Your task to perform on an android device: change the clock display to show seconds Image 0: 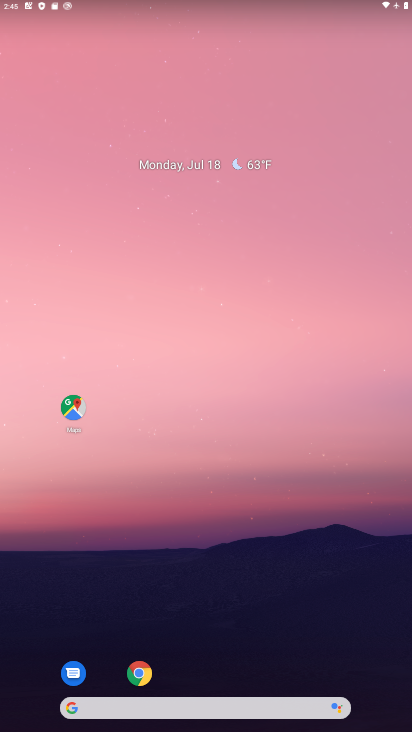
Step 0: drag from (273, 658) to (273, 110)
Your task to perform on an android device: change the clock display to show seconds Image 1: 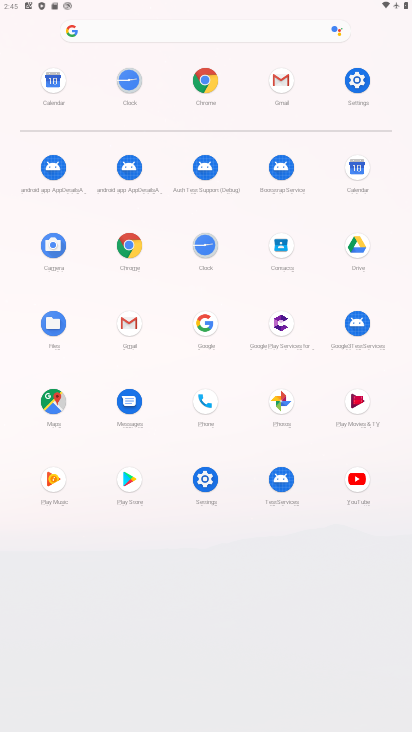
Step 1: click (197, 245)
Your task to perform on an android device: change the clock display to show seconds Image 2: 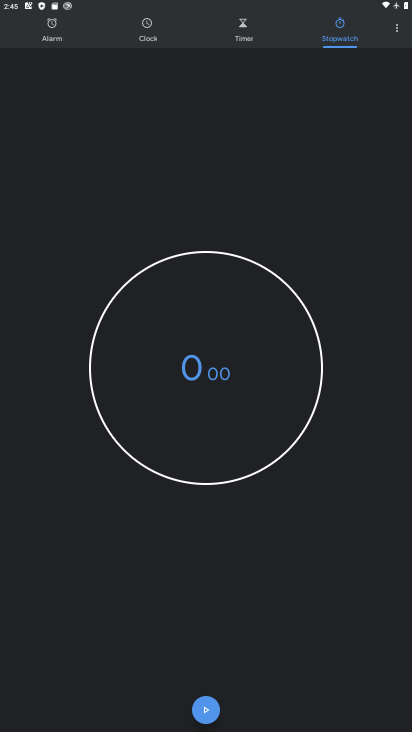
Step 2: click (395, 30)
Your task to perform on an android device: change the clock display to show seconds Image 3: 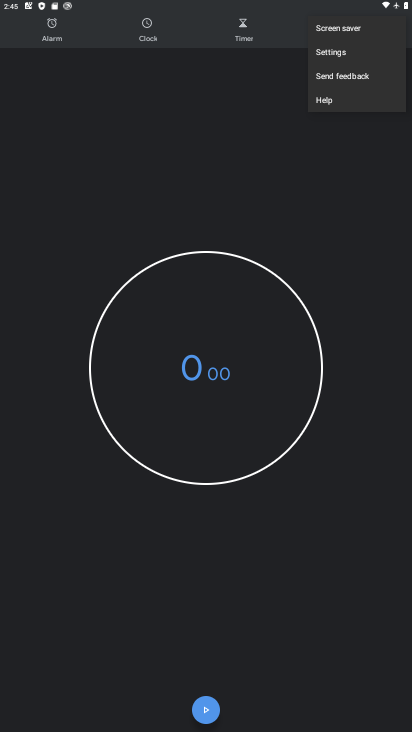
Step 3: click (354, 48)
Your task to perform on an android device: change the clock display to show seconds Image 4: 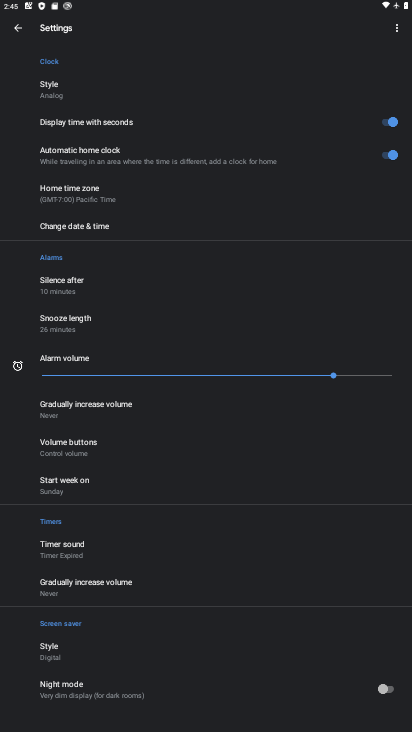
Step 4: click (375, 114)
Your task to perform on an android device: change the clock display to show seconds Image 5: 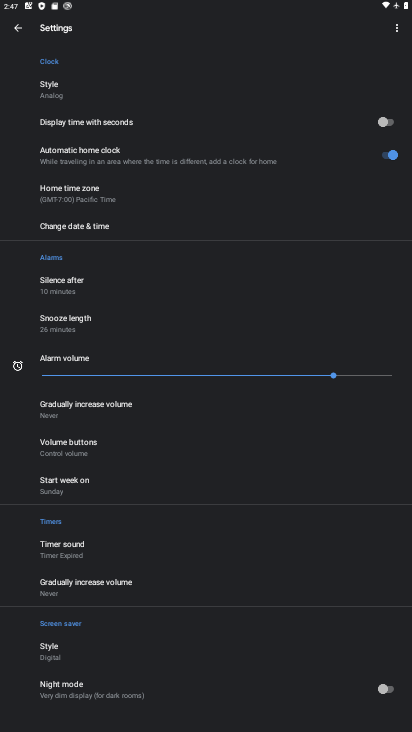
Step 5: task complete